Your task to perform on an android device: check storage Image 0: 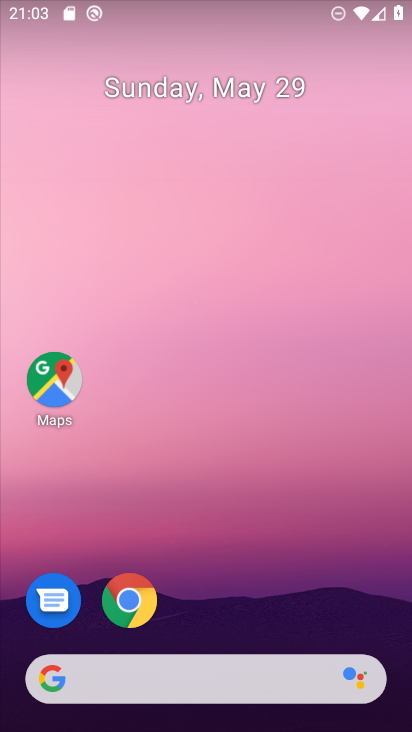
Step 0: drag from (313, 582) to (364, 183)
Your task to perform on an android device: check storage Image 1: 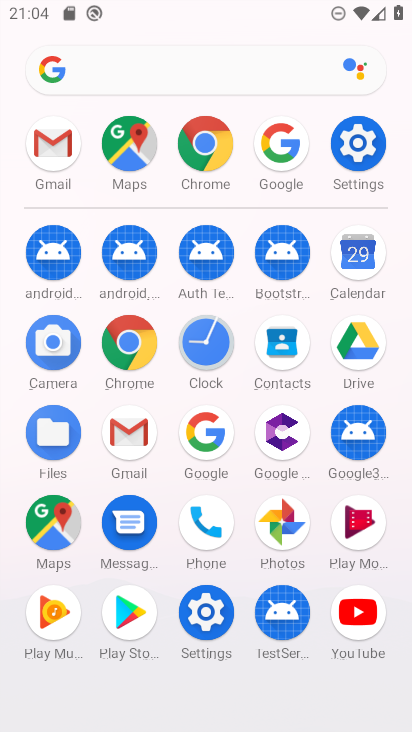
Step 1: click (224, 626)
Your task to perform on an android device: check storage Image 2: 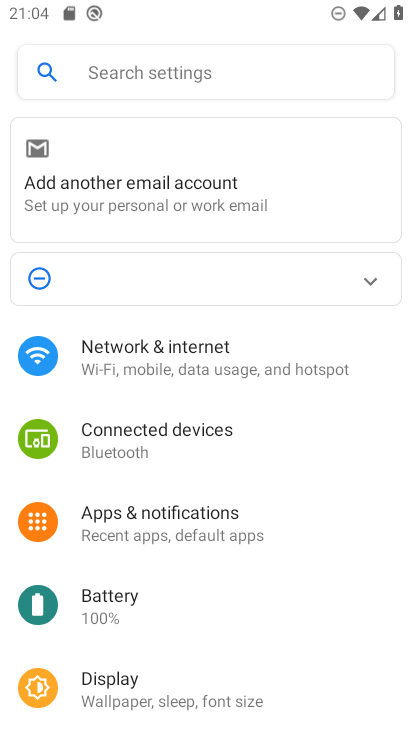
Step 2: drag from (226, 688) to (326, 351)
Your task to perform on an android device: check storage Image 3: 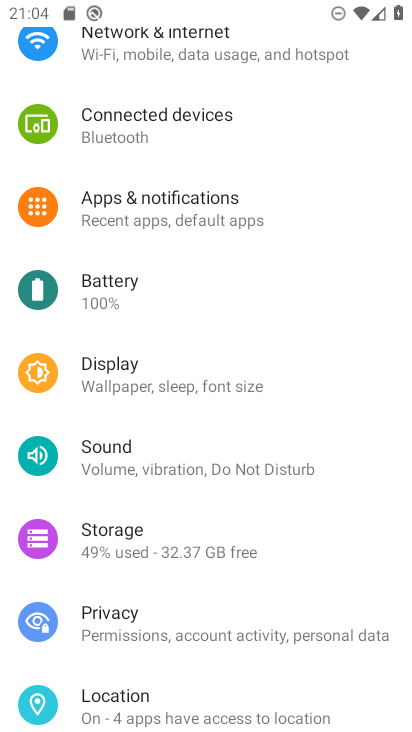
Step 3: drag from (265, 624) to (305, 301)
Your task to perform on an android device: check storage Image 4: 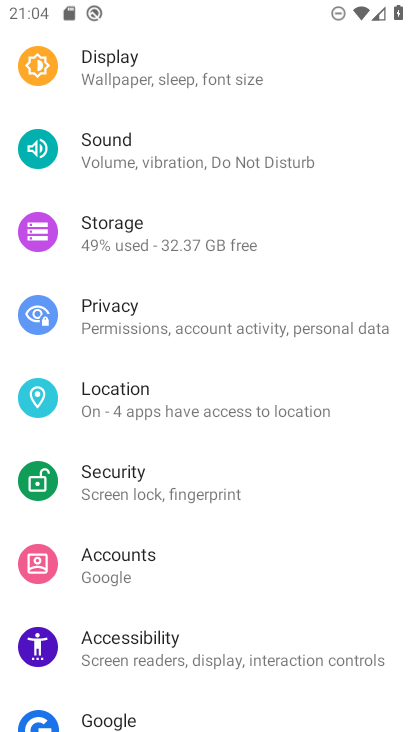
Step 4: click (133, 236)
Your task to perform on an android device: check storage Image 5: 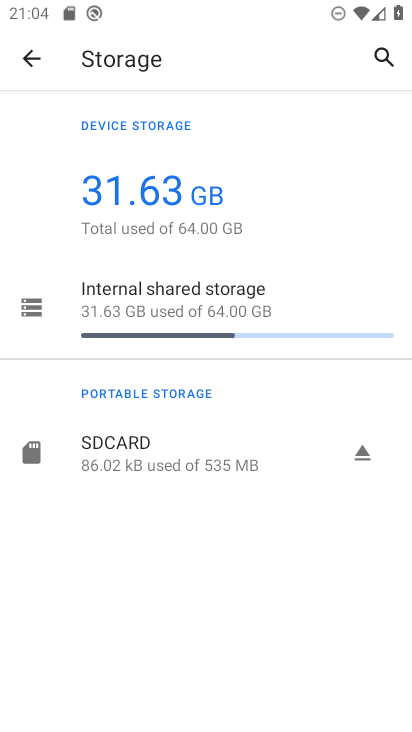
Step 5: click (21, 309)
Your task to perform on an android device: check storage Image 6: 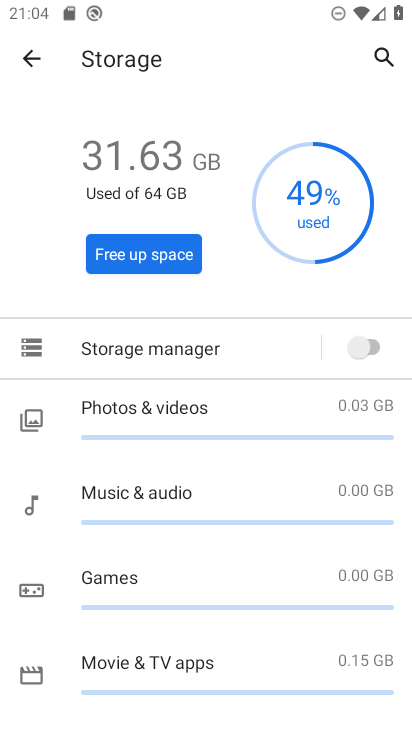
Step 6: click (24, 347)
Your task to perform on an android device: check storage Image 7: 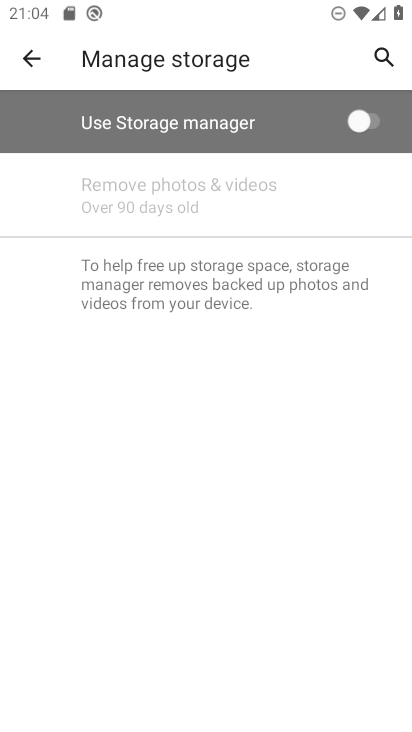
Step 7: task complete